Your task to perform on an android device: Search for sushi restaurants on Maps Image 0: 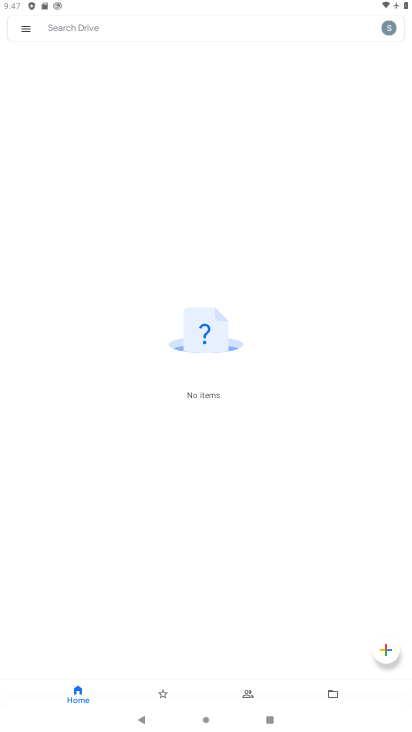
Step 0: press back button
Your task to perform on an android device: Search for sushi restaurants on Maps Image 1: 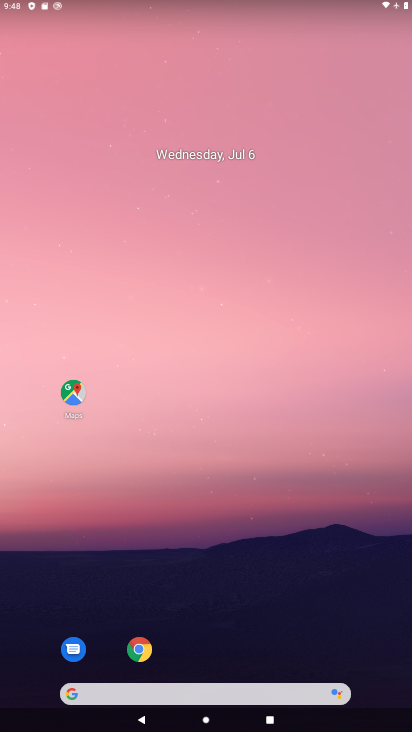
Step 1: click (75, 396)
Your task to perform on an android device: Search for sushi restaurants on Maps Image 2: 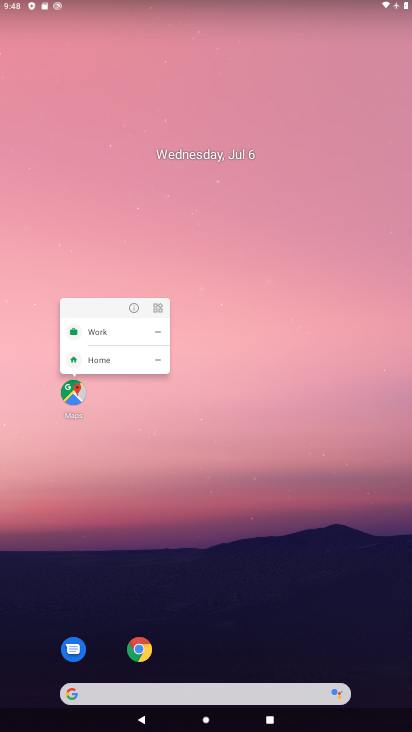
Step 2: click (75, 396)
Your task to perform on an android device: Search for sushi restaurants on Maps Image 3: 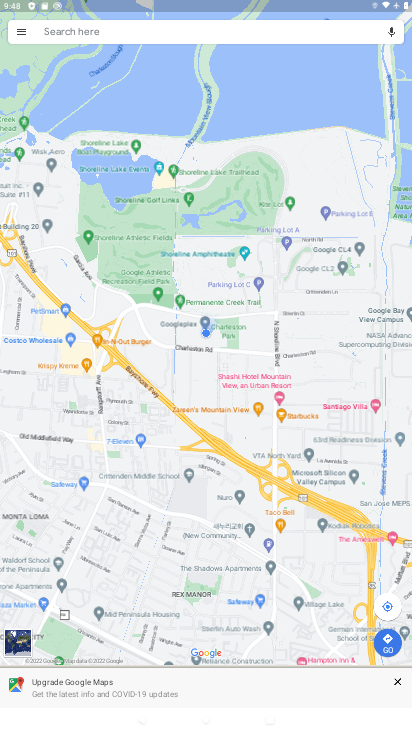
Step 3: click (112, 34)
Your task to perform on an android device: Search for sushi restaurants on Maps Image 4: 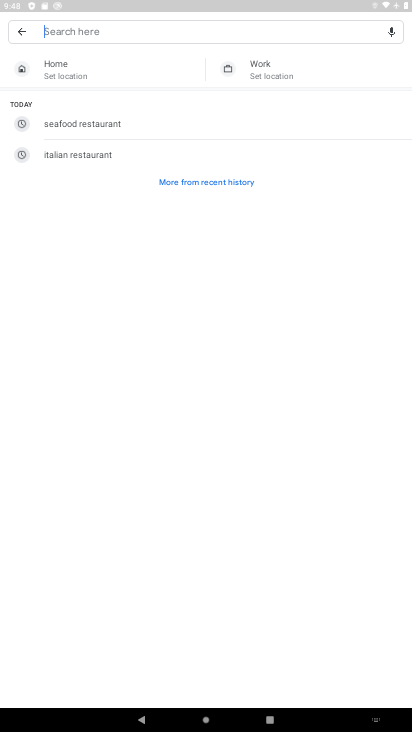
Step 4: type "sushi restaurants"
Your task to perform on an android device: Search for sushi restaurants on Maps Image 5: 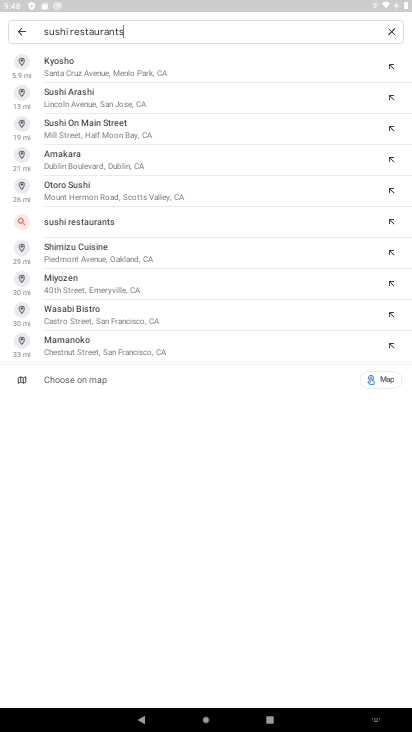
Step 5: click (77, 223)
Your task to perform on an android device: Search for sushi restaurants on Maps Image 6: 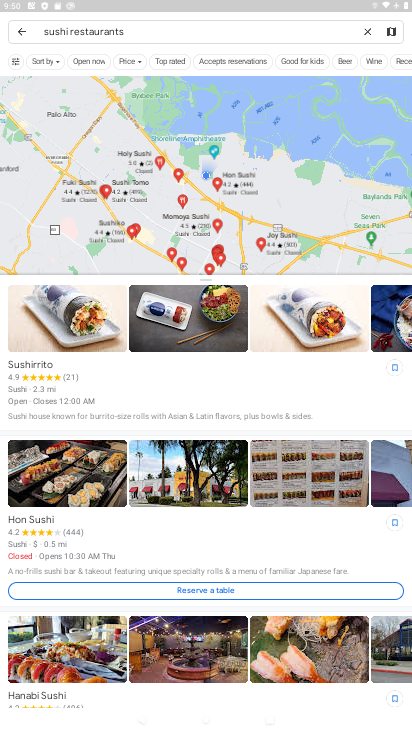
Step 6: task complete